Your task to perform on an android device: toggle javascript in the chrome app Image 0: 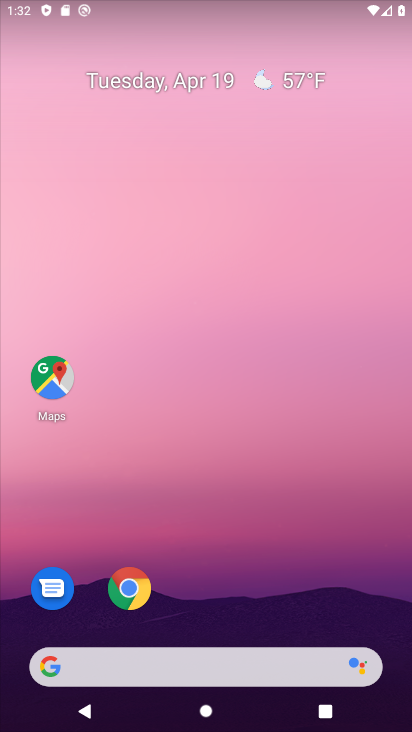
Step 0: click (134, 588)
Your task to perform on an android device: toggle javascript in the chrome app Image 1: 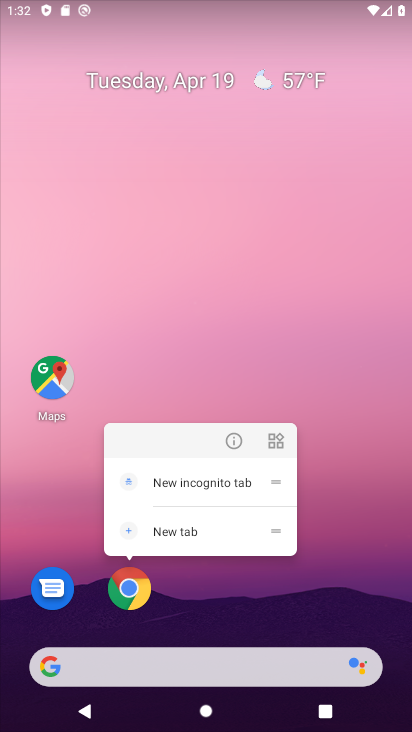
Step 1: click (126, 575)
Your task to perform on an android device: toggle javascript in the chrome app Image 2: 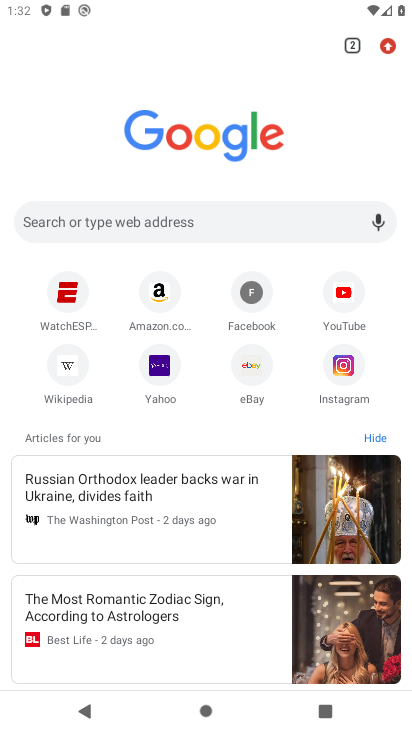
Step 2: click (389, 40)
Your task to perform on an android device: toggle javascript in the chrome app Image 3: 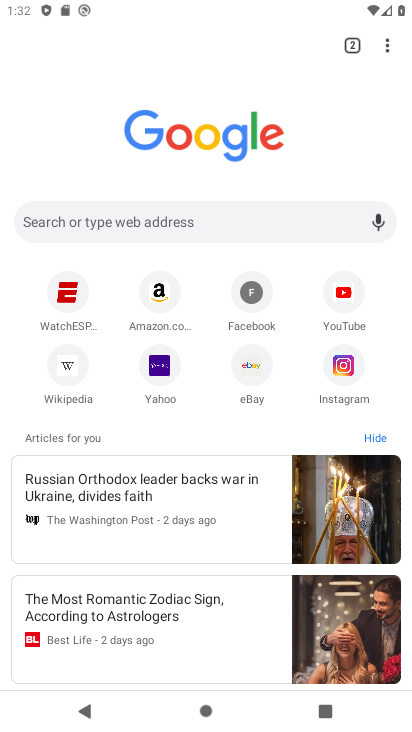
Step 3: click (389, 41)
Your task to perform on an android device: toggle javascript in the chrome app Image 4: 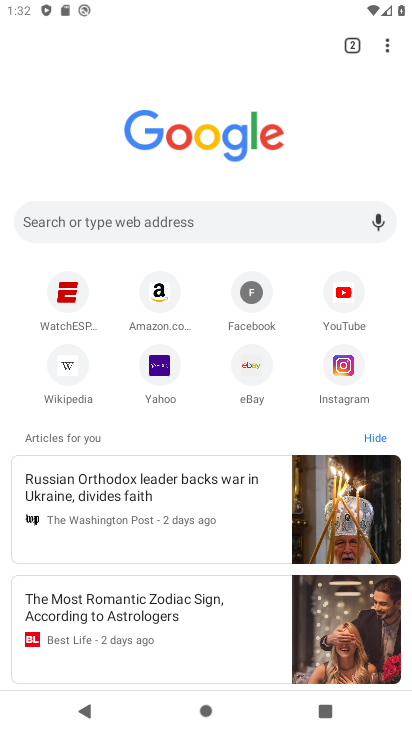
Step 4: drag from (386, 44) to (218, 426)
Your task to perform on an android device: toggle javascript in the chrome app Image 5: 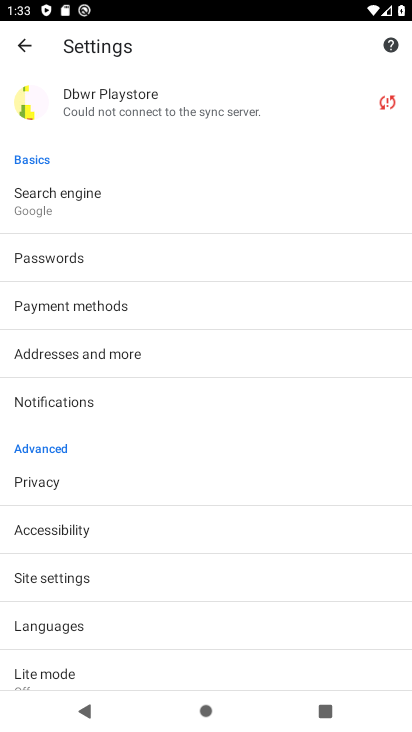
Step 5: click (177, 566)
Your task to perform on an android device: toggle javascript in the chrome app Image 6: 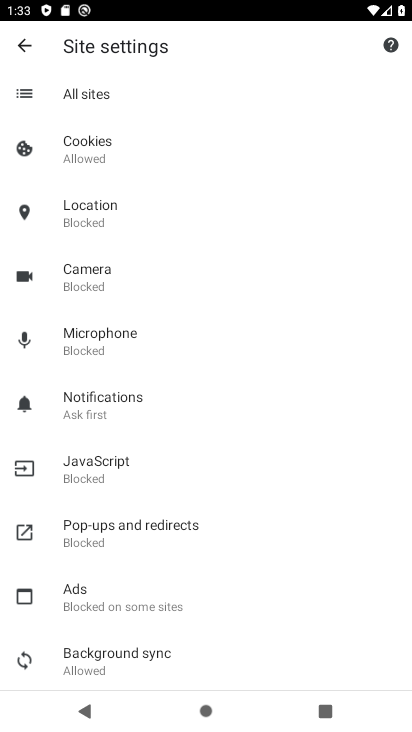
Step 6: click (175, 466)
Your task to perform on an android device: toggle javascript in the chrome app Image 7: 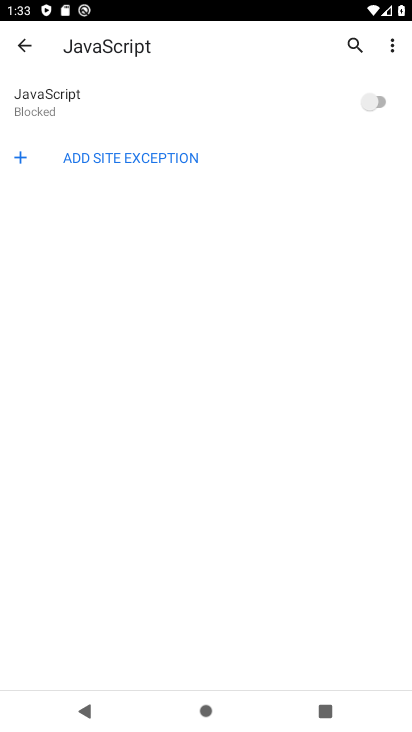
Step 7: click (372, 99)
Your task to perform on an android device: toggle javascript in the chrome app Image 8: 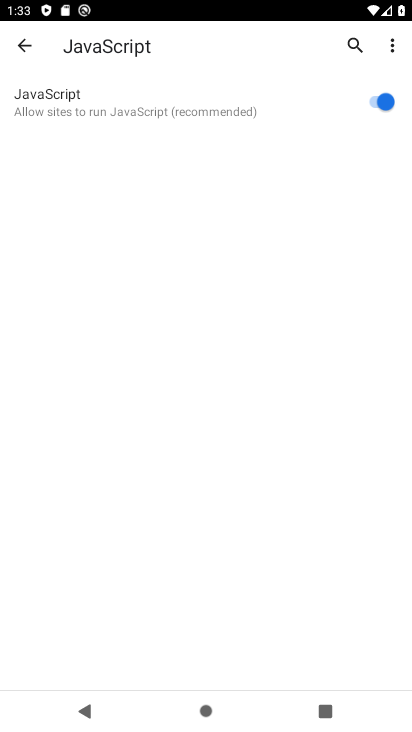
Step 8: task complete